Your task to perform on an android device: Open location settings Image 0: 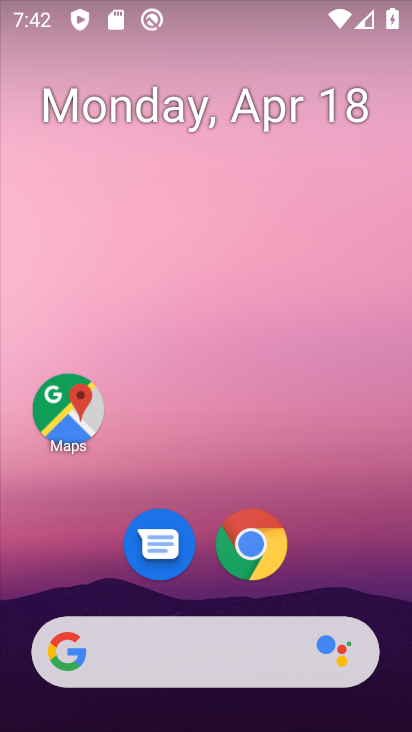
Step 0: drag from (350, 553) to (367, 5)
Your task to perform on an android device: Open location settings Image 1: 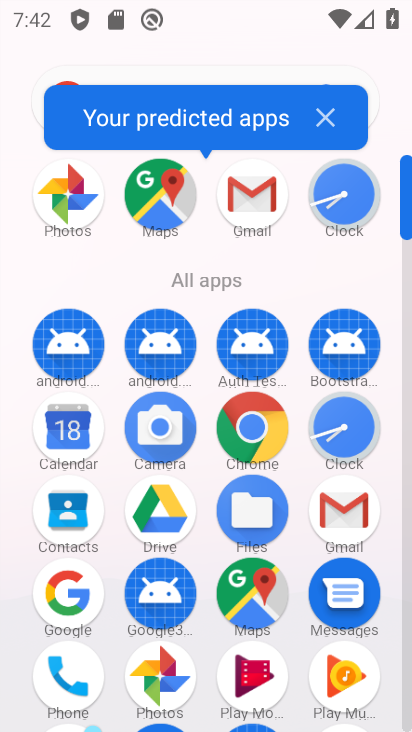
Step 1: drag from (401, 552) to (399, 513)
Your task to perform on an android device: Open location settings Image 2: 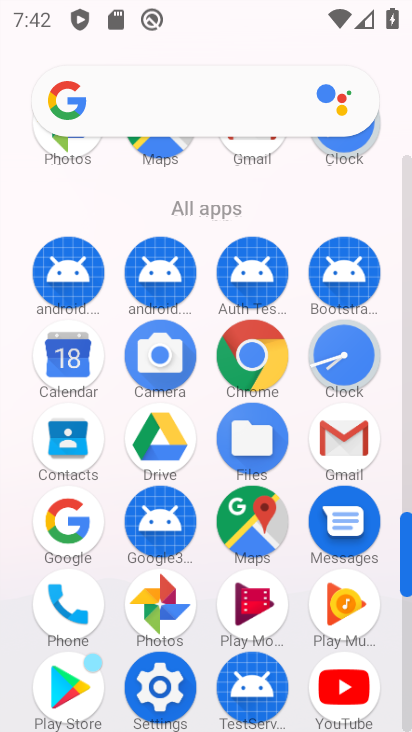
Step 2: click (160, 696)
Your task to perform on an android device: Open location settings Image 3: 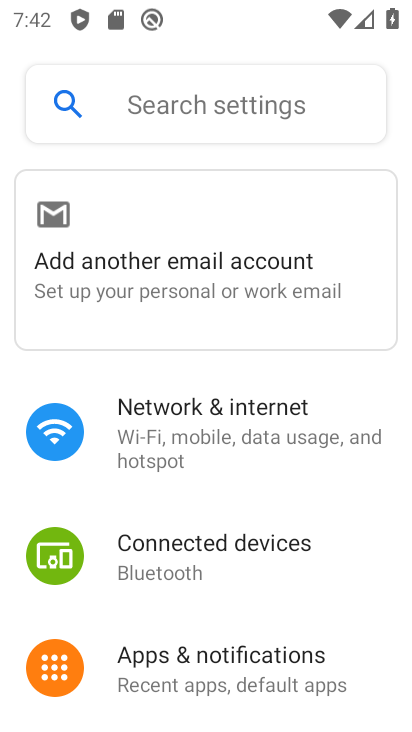
Step 3: drag from (391, 649) to (408, 440)
Your task to perform on an android device: Open location settings Image 4: 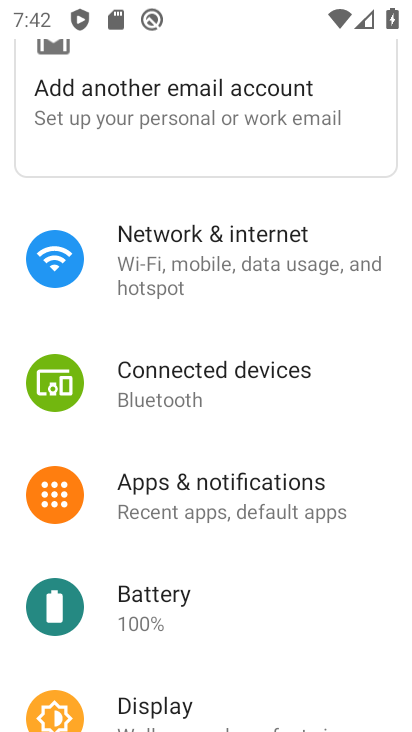
Step 4: drag from (395, 616) to (384, 324)
Your task to perform on an android device: Open location settings Image 5: 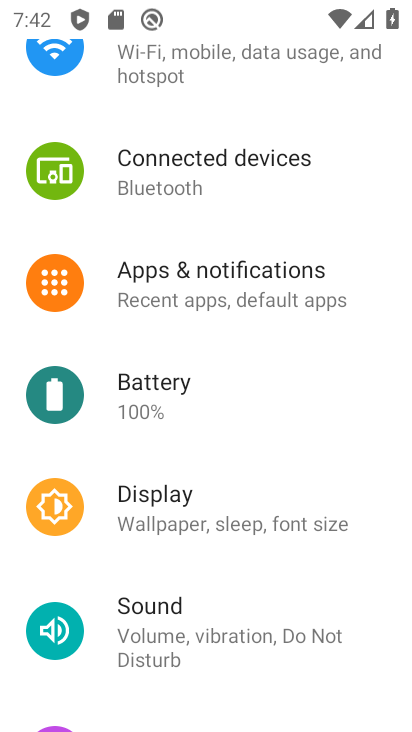
Step 5: drag from (362, 505) to (374, 242)
Your task to perform on an android device: Open location settings Image 6: 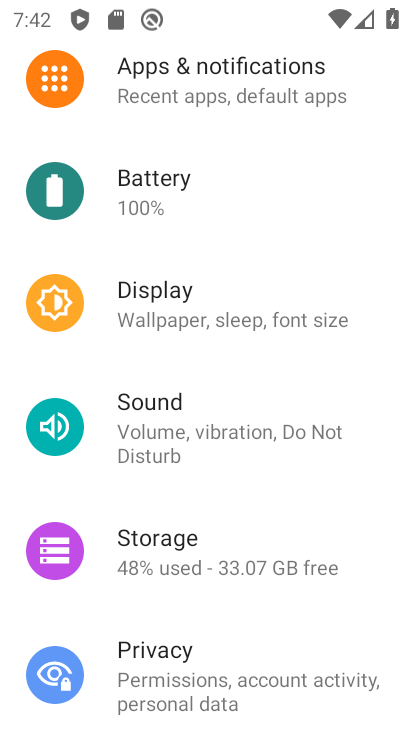
Step 6: drag from (379, 599) to (360, 312)
Your task to perform on an android device: Open location settings Image 7: 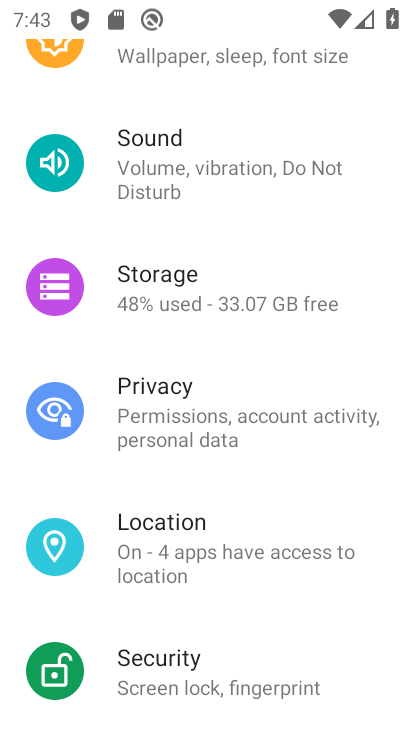
Step 7: click (146, 542)
Your task to perform on an android device: Open location settings Image 8: 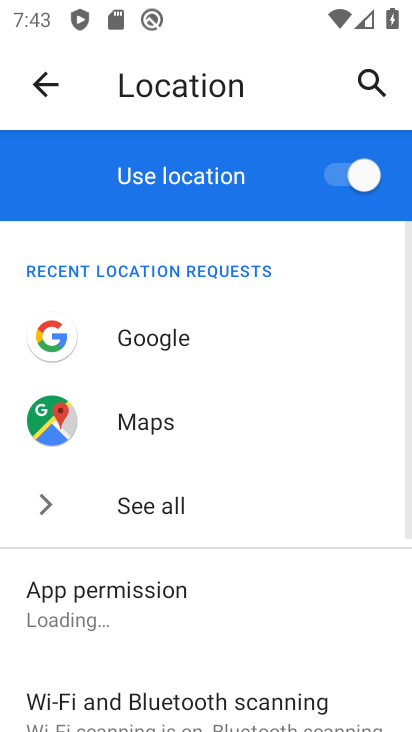
Step 8: task complete